Your task to perform on an android device: find snoozed emails in the gmail app Image 0: 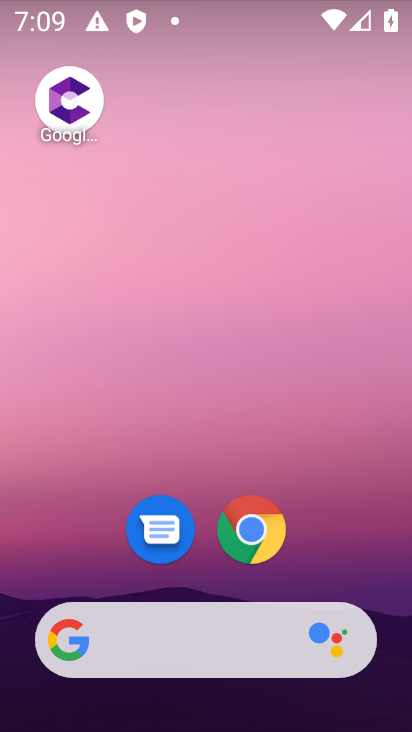
Step 0: drag from (303, 502) to (319, 20)
Your task to perform on an android device: find snoozed emails in the gmail app Image 1: 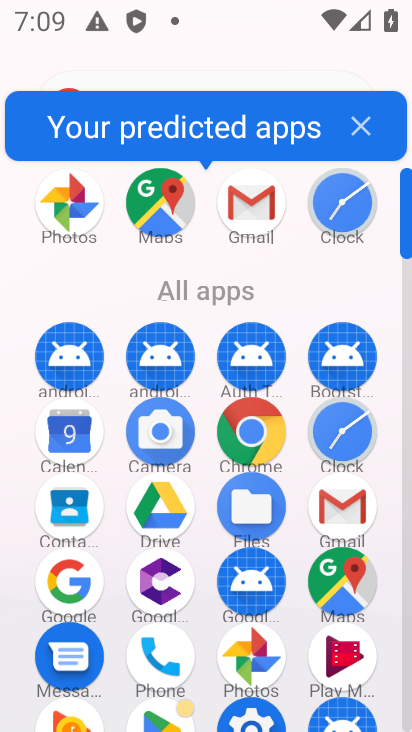
Step 1: click (254, 208)
Your task to perform on an android device: find snoozed emails in the gmail app Image 2: 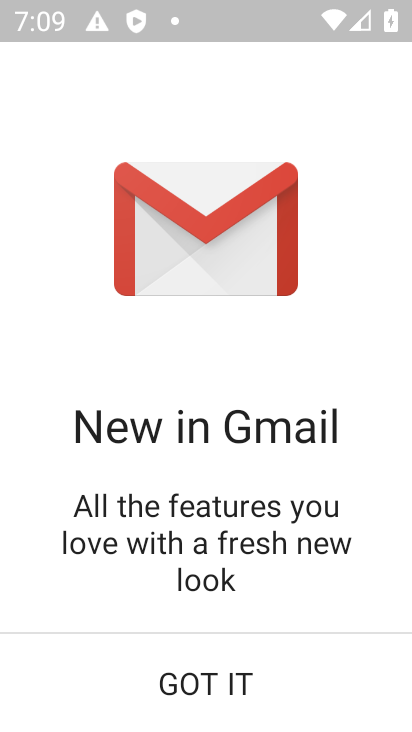
Step 2: click (211, 689)
Your task to perform on an android device: find snoozed emails in the gmail app Image 3: 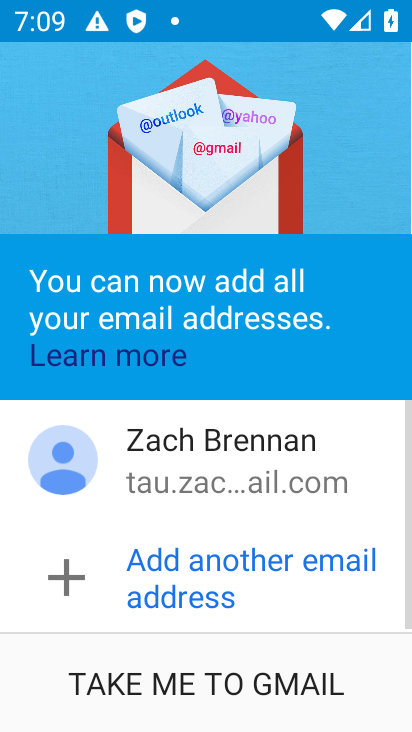
Step 3: click (211, 689)
Your task to perform on an android device: find snoozed emails in the gmail app Image 4: 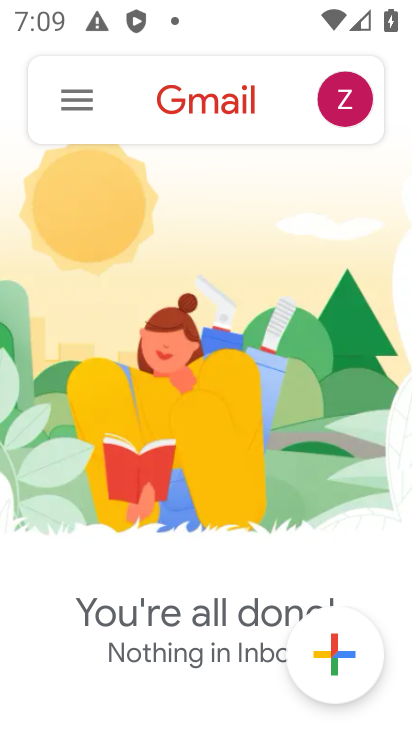
Step 4: click (76, 107)
Your task to perform on an android device: find snoozed emails in the gmail app Image 5: 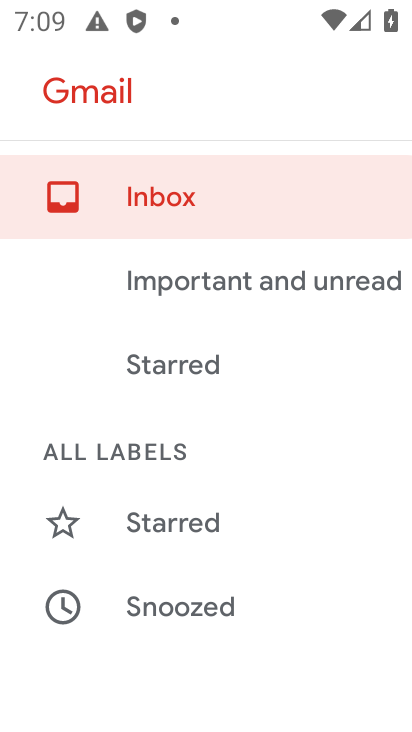
Step 5: click (178, 617)
Your task to perform on an android device: find snoozed emails in the gmail app Image 6: 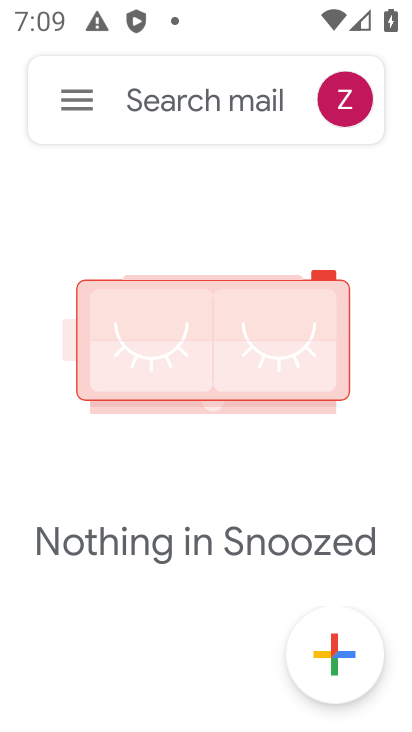
Step 6: task complete